Your task to perform on an android device: toggle airplane mode Image 0: 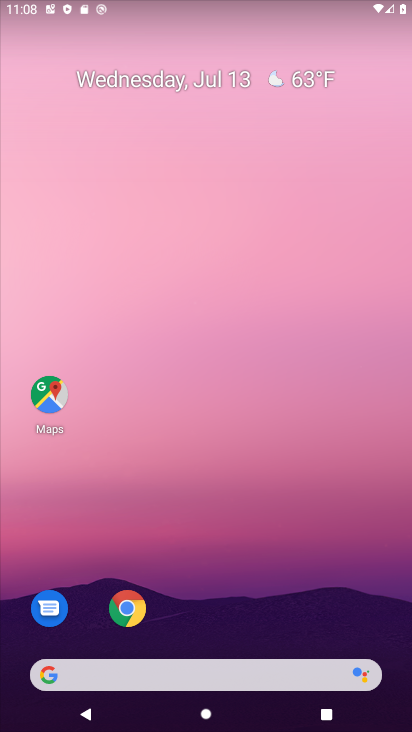
Step 0: drag from (240, 5) to (227, 253)
Your task to perform on an android device: toggle airplane mode Image 1: 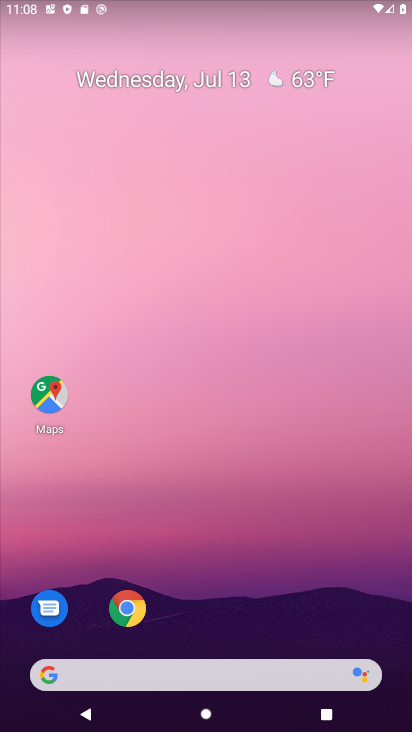
Step 1: drag from (363, 16) to (360, 236)
Your task to perform on an android device: toggle airplane mode Image 2: 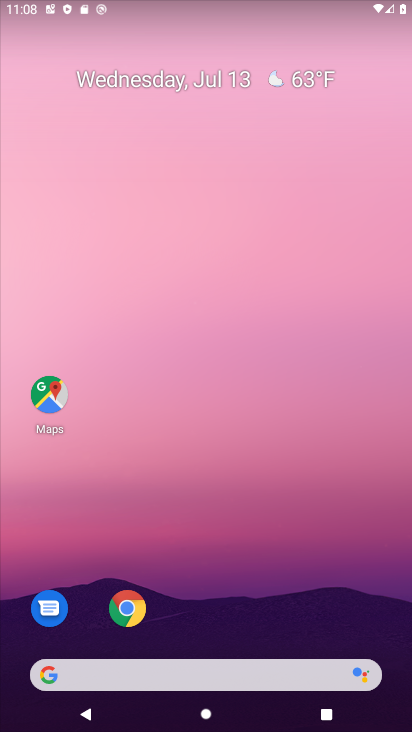
Step 2: drag from (377, 9) to (351, 441)
Your task to perform on an android device: toggle airplane mode Image 3: 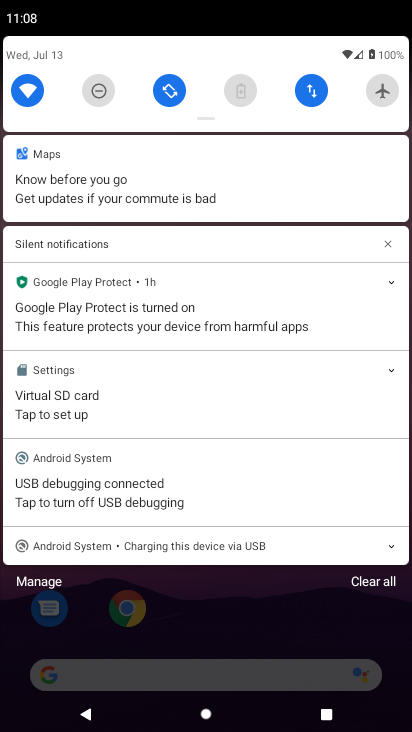
Step 3: click (376, 90)
Your task to perform on an android device: toggle airplane mode Image 4: 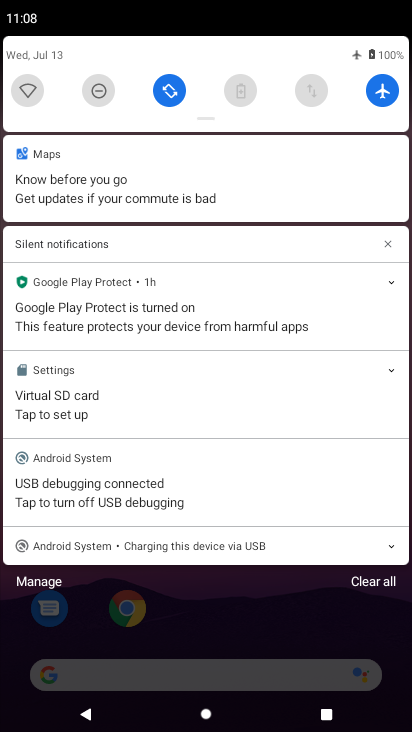
Step 4: task complete